Your task to perform on an android device: allow cookies in the chrome app Image 0: 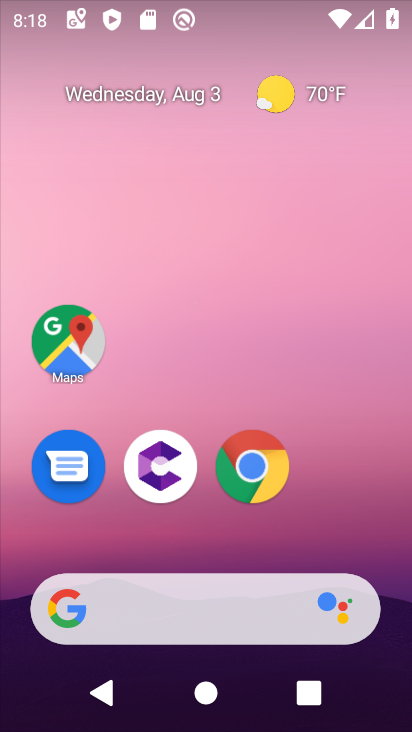
Step 0: drag from (381, 486) to (313, 15)
Your task to perform on an android device: allow cookies in the chrome app Image 1: 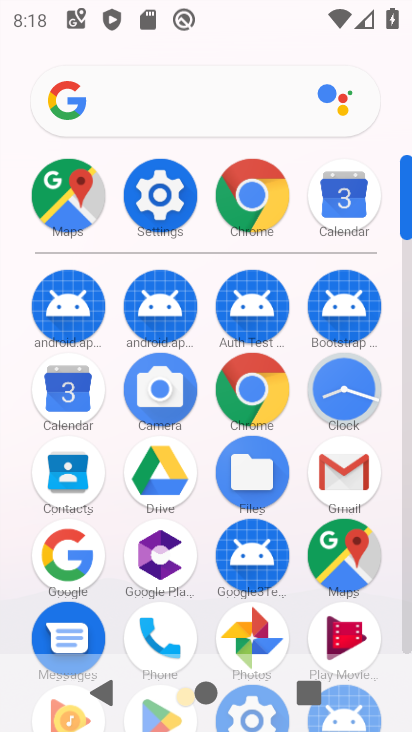
Step 1: click (254, 387)
Your task to perform on an android device: allow cookies in the chrome app Image 2: 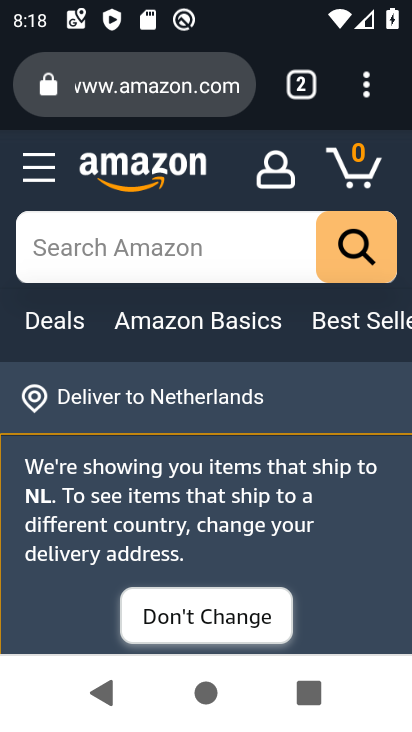
Step 2: drag from (357, 86) to (151, 550)
Your task to perform on an android device: allow cookies in the chrome app Image 3: 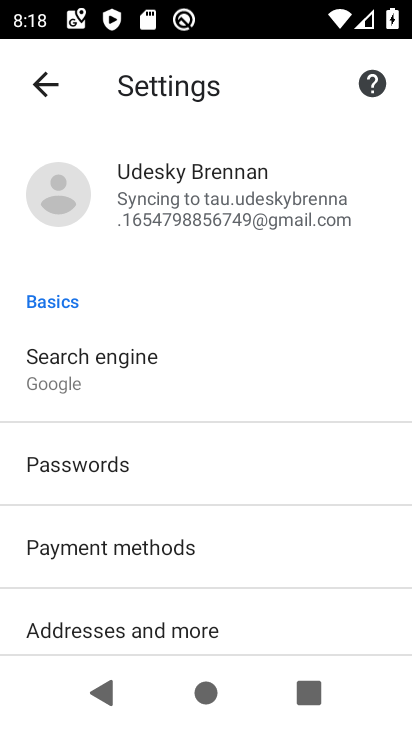
Step 3: drag from (216, 503) to (240, 162)
Your task to perform on an android device: allow cookies in the chrome app Image 4: 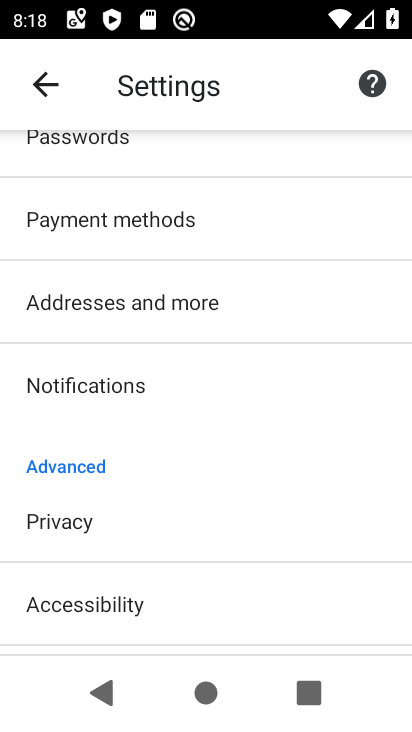
Step 4: drag from (163, 539) to (240, 189)
Your task to perform on an android device: allow cookies in the chrome app Image 5: 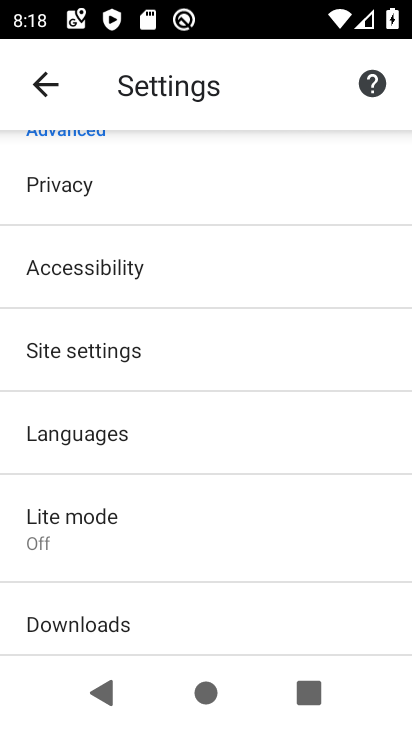
Step 5: click (133, 338)
Your task to perform on an android device: allow cookies in the chrome app Image 6: 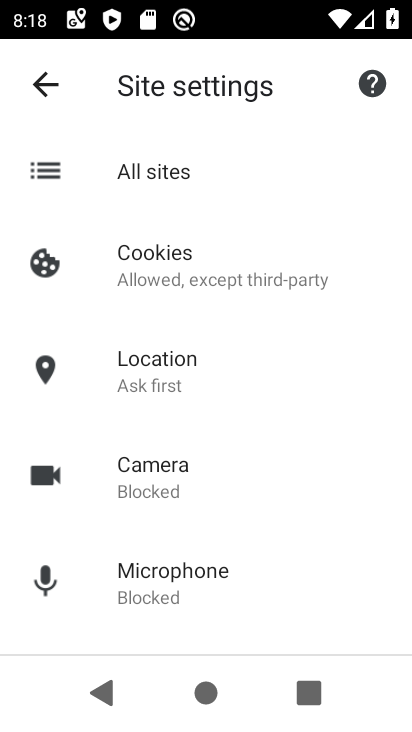
Step 6: drag from (259, 519) to (234, 37)
Your task to perform on an android device: allow cookies in the chrome app Image 7: 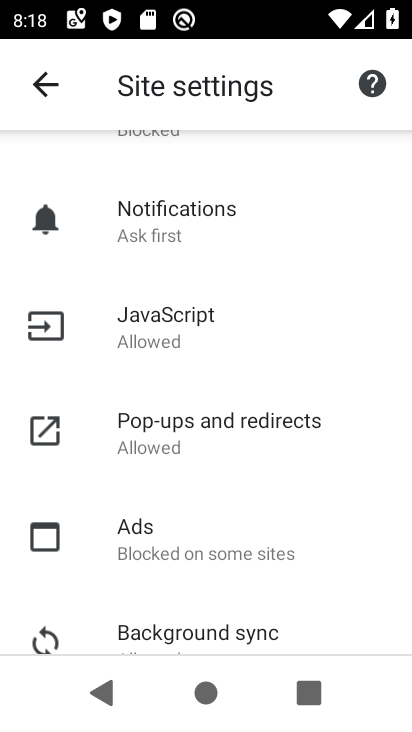
Step 7: click (198, 375)
Your task to perform on an android device: allow cookies in the chrome app Image 8: 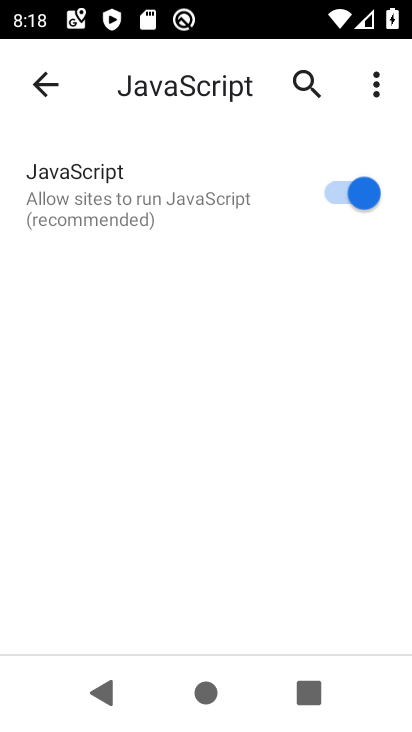
Step 8: click (36, 74)
Your task to perform on an android device: allow cookies in the chrome app Image 9: 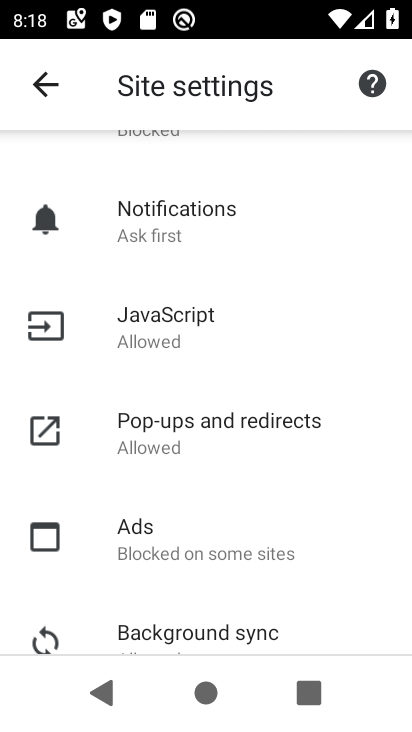
Step 9: drag from (200, 506) to (195, 174)
Your task to perform on an android device: allow cookies in the chrome app Image 10: 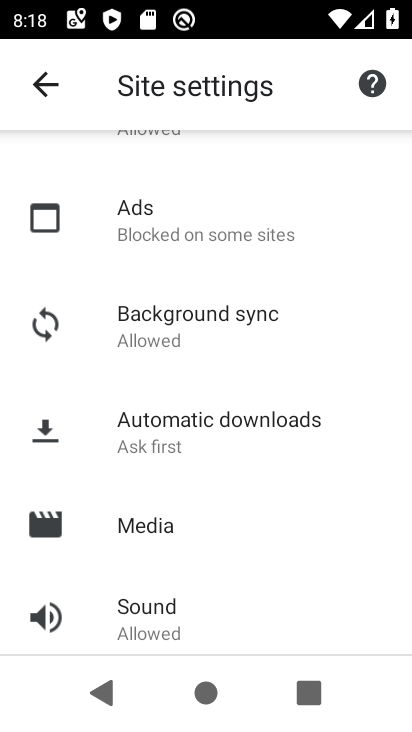
Step 10: drag from (280, 534) to (261, 164)
Your task to perform on an android device: allow cookies in the chrome app Image 11: 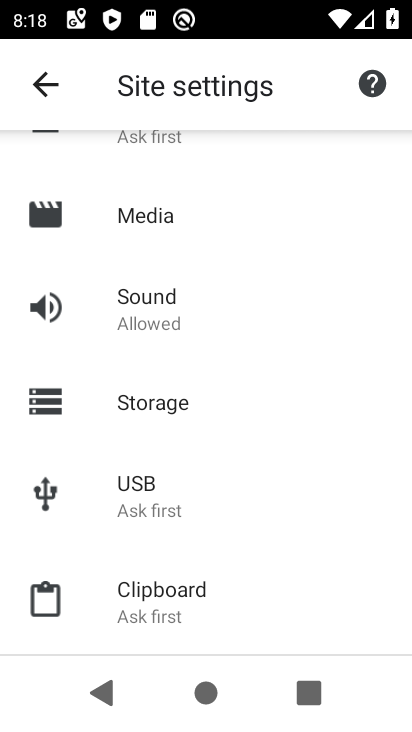
Step 11: drag from (248, 182) to (273, 594)
Your task to perform on an android device: allow cookies in the chrome app Image 12: 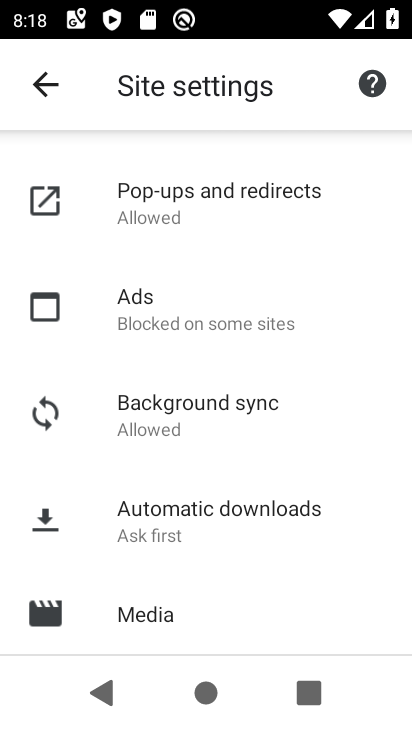
Step 12: drag from (247, 225) to (290, 587)
Your task to perform on an android device: allow cookies in the chrome app Image 13: 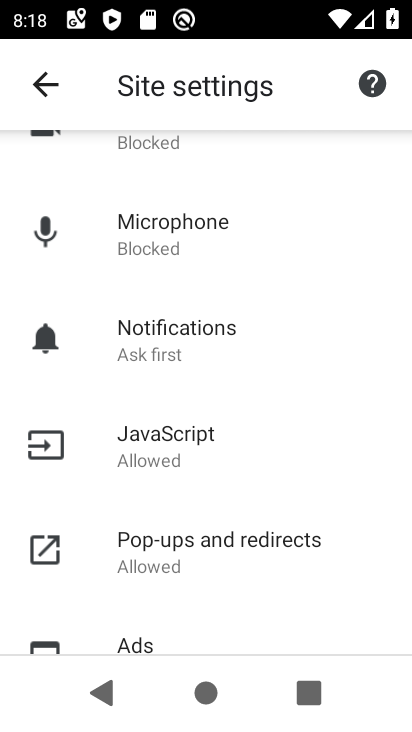
Step 13: drag from (280, 270) to (263, 481)
Your task to perform on an android device: allow cookies in the chrome app Image 14: 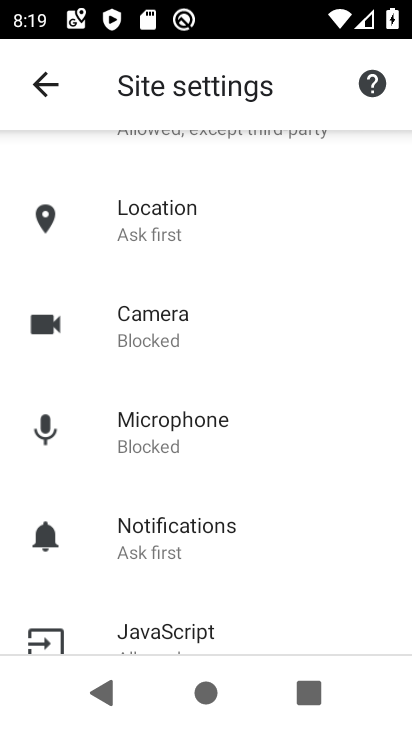
Step 14: drag from (256, 222) to (237, 546)
Your task to perform on an android device: allow cookies in the chrome app Image 15: 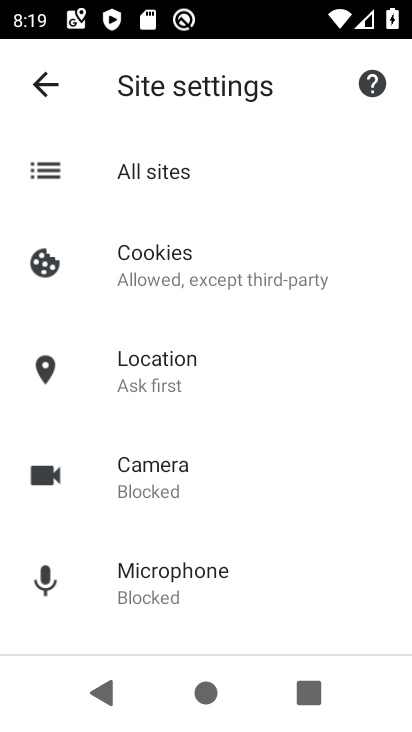
Step 15: click (204, 269)
Your task to perform on an android device: allow cookies in the chrome app Image 16: 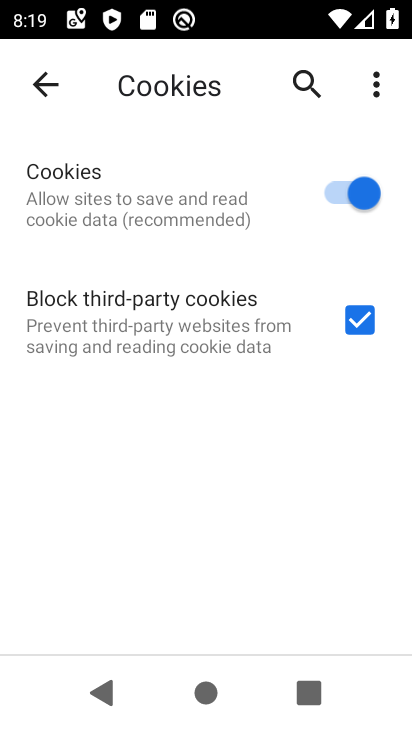
Step 16: task complete